Your task to perform on an android device: What's on my calendar today? Image 0: 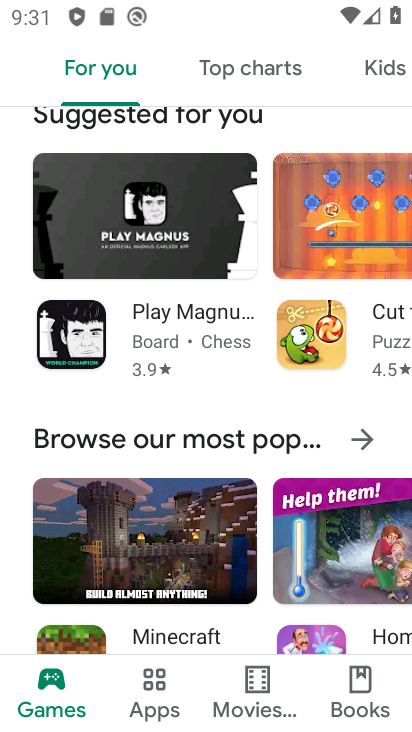
Step 0: press home button
Your task to perform on an android device: What's on my calendar today? Image 1: 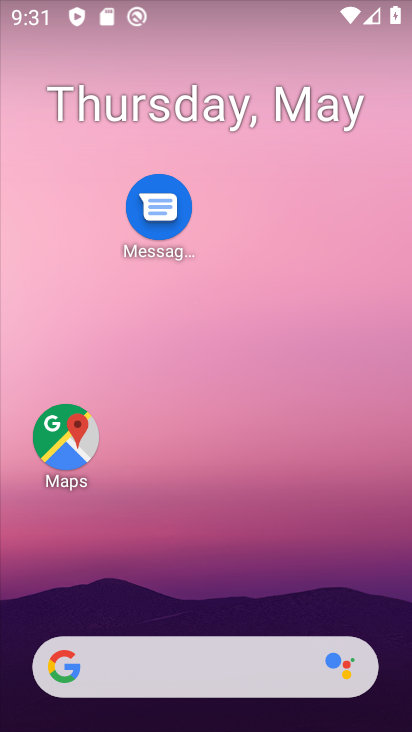
Step 1: drag from (203, 622) to (387, 268)
Your task to perform on an android device: What's on my calendar today? Image 2: 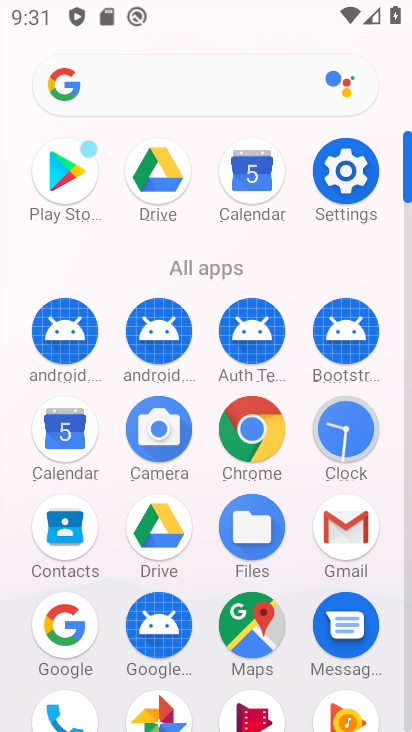
Step 2: click (50, 418)
Your task to perform on an android device: What's on my calendar today? Image 3: 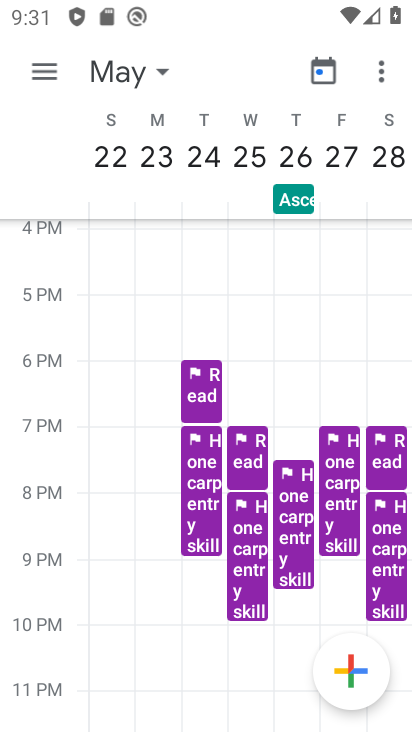
Step 3: click (309, 74)
Your task to perform on an android device: What's on my calendar today? Image 4: 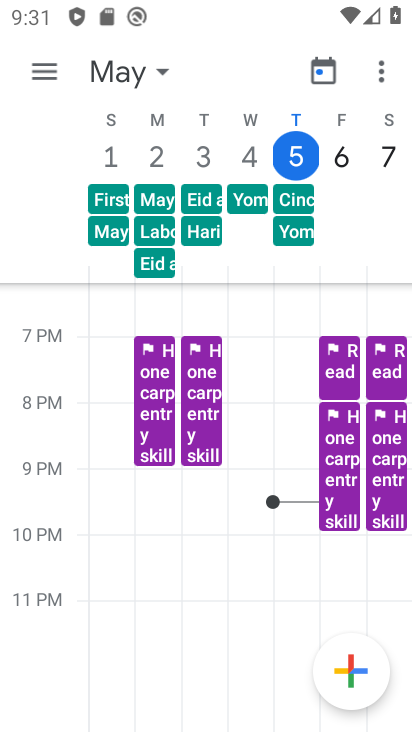
Step 4: click (287, 142)
Your task to perform on an android device: What's on my calendar today? Image 5: 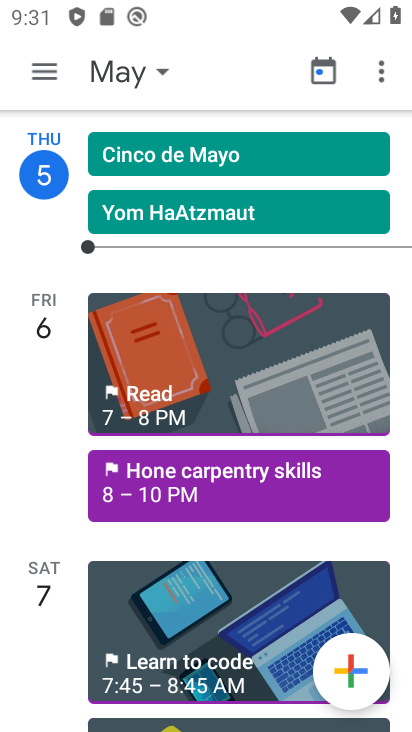
Step 5: task complete